Your task to perform on an android device: Open the calendar app, open the side menu, and click the "Day" option Image 0: 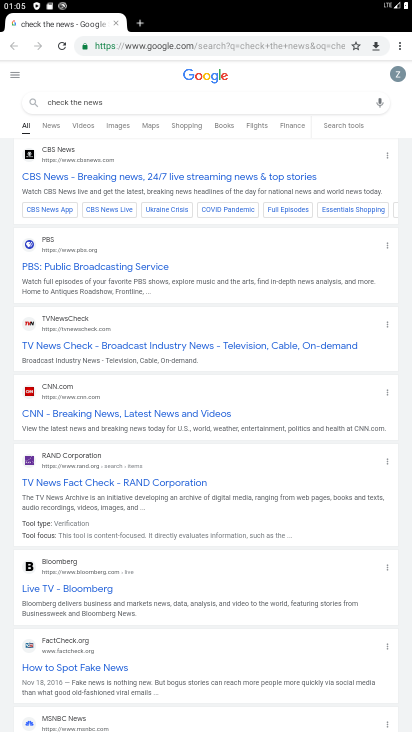
Step 0: press home button
Your task to perform on an android device: Open the calendar app, open the side menu, and click the "Day" option Image 1: 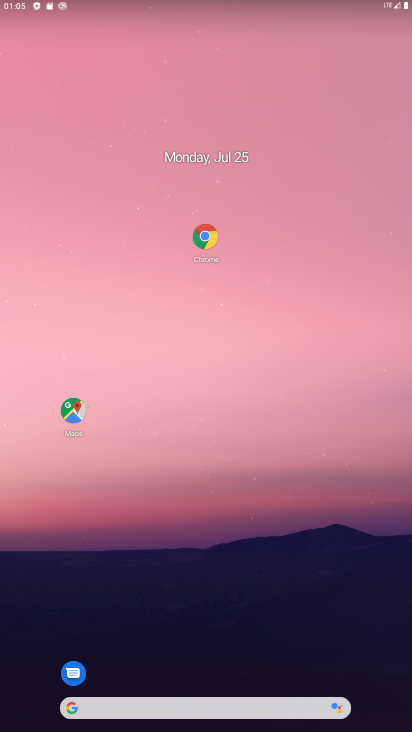
Step 1: drag from (191, 714) to (240, 54)
Your task to perform on an android device: Open the calendar app, open the side menu, and click the "Day" option Image 2: 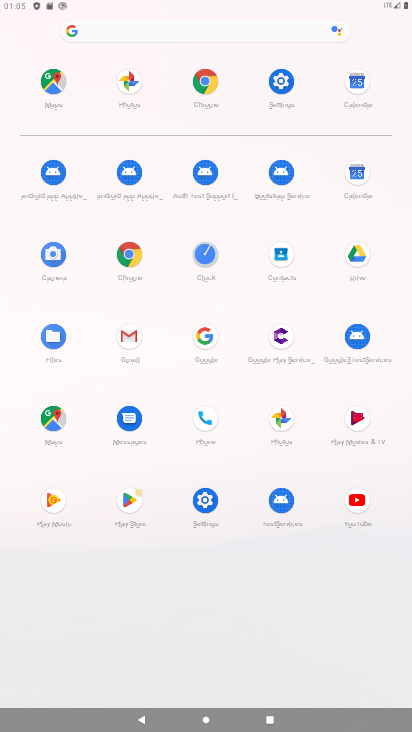
Step 2: click (353, 176)
Your task to perform on an android device: Open the calendar app, open the side menu, and click the "Day" option Image 3: 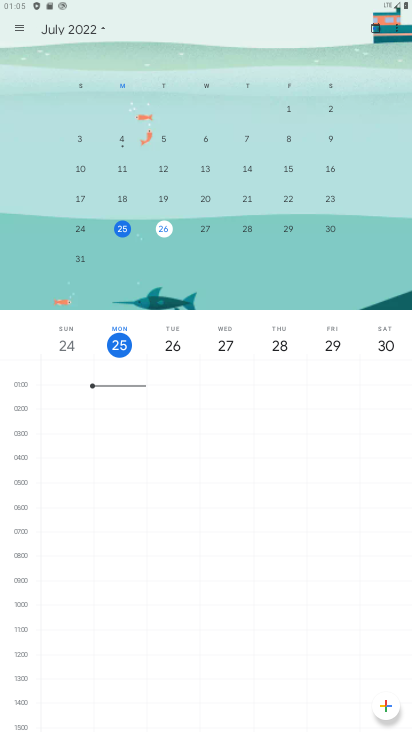
Step 3: click (18, 27)
Your task to perform on an android device: Open the calendar app, open the side menu, and click the "Day" option Image 4: 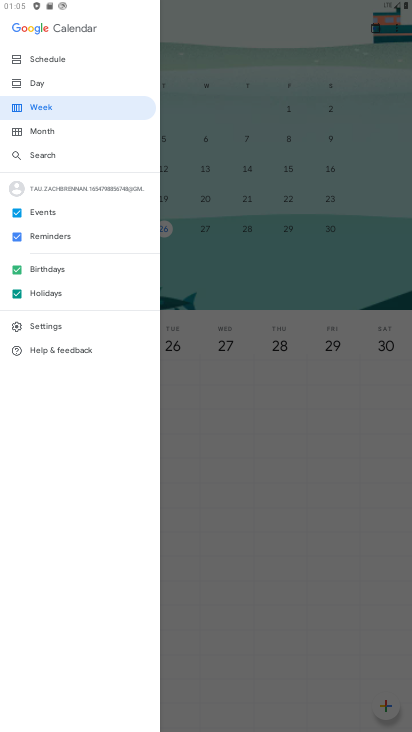
Step 4: click (37, 84)
Your task to perform on an android device: Open the calendar app, open the side menu, and click the "Day" option Image 5: 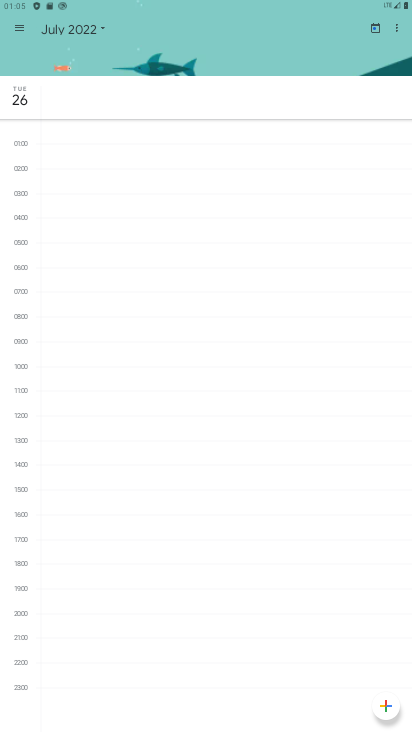
Step 5: task complete